Your task to perform on an android device: manage bookmarks in the chrome app Image 0: 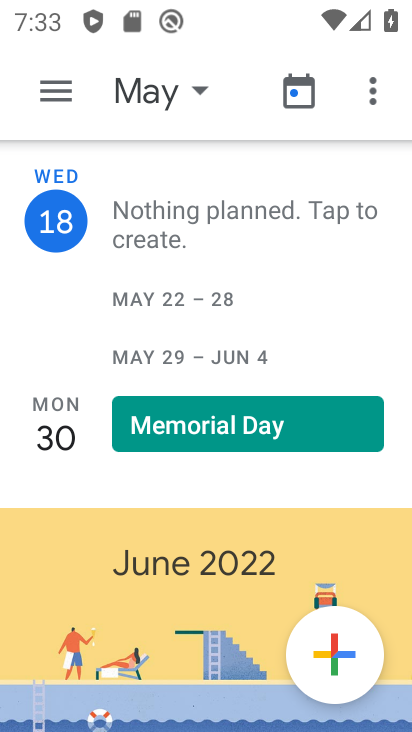
Step 0: press home button
Your task to perform on an android device: manage bookmarks in the chrome app Image 1: 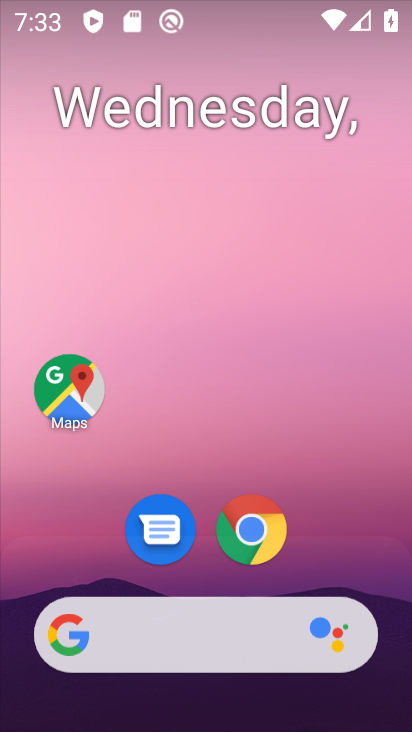
Step 1: click (246, 528)
Your task to perform on an android device: manage bookmarks in the chrome app Image 2: 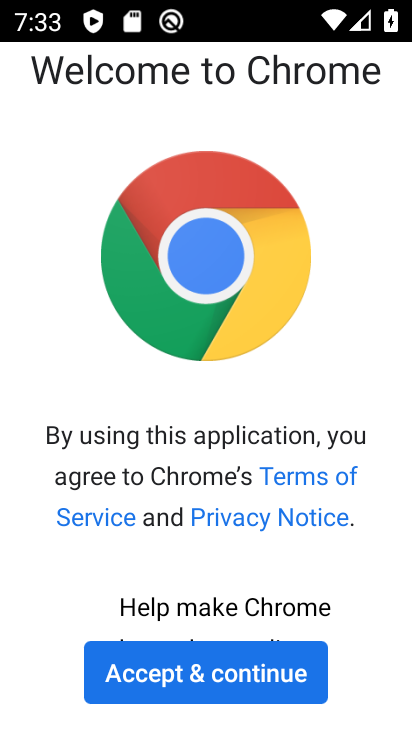
Step 2: click (202, 683)
Your task to perform on an android device: manage bookmarks in the chrome app Image 3: 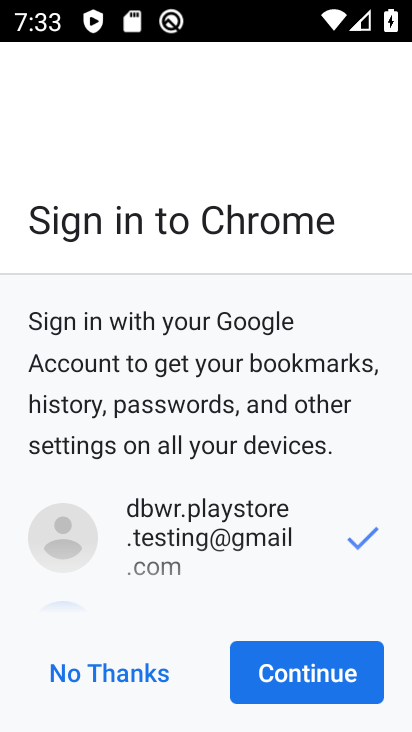
Step 3: click (323, 684)
Your task to perform on an android device: manage bookmarks in the chrome app Image 4: 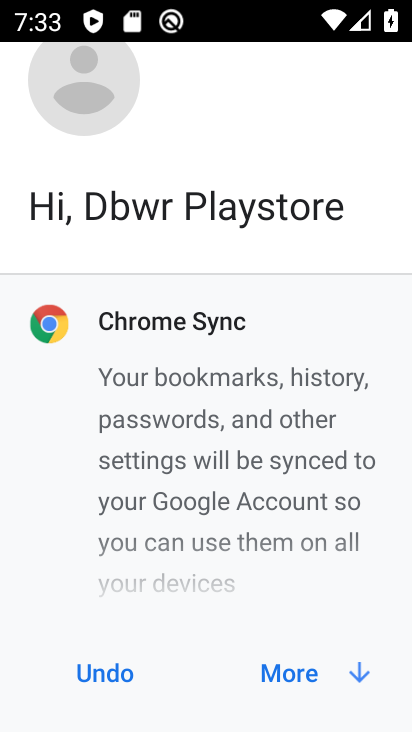
Step 4: click (301, 678)
Your task to perform on an android device: manage bookmarks in the chrome app Image 5: 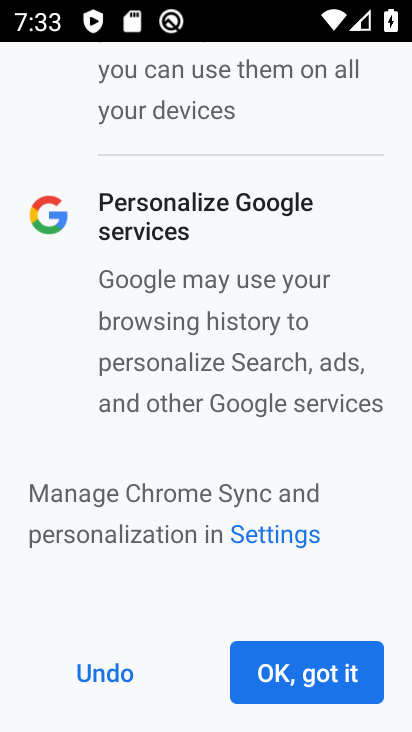
Step 5: click (301, 678)
Your task to perform on an android device: manage bookmarks in the chrome app Image 6: 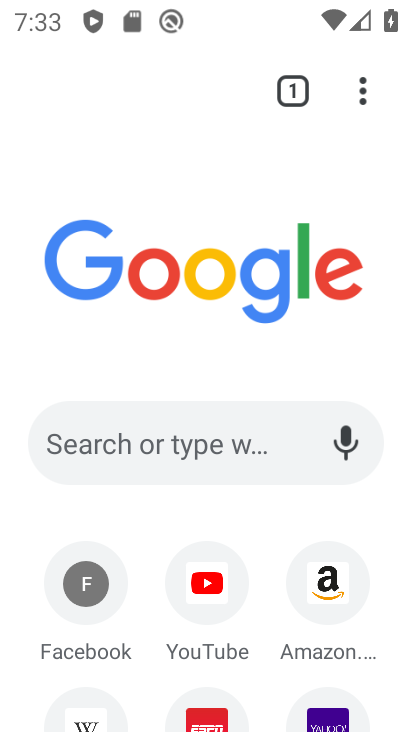
Step 6: click (369, 99)
Your task to perform on an android device: manage bookmarks in the chrome app Image 7: 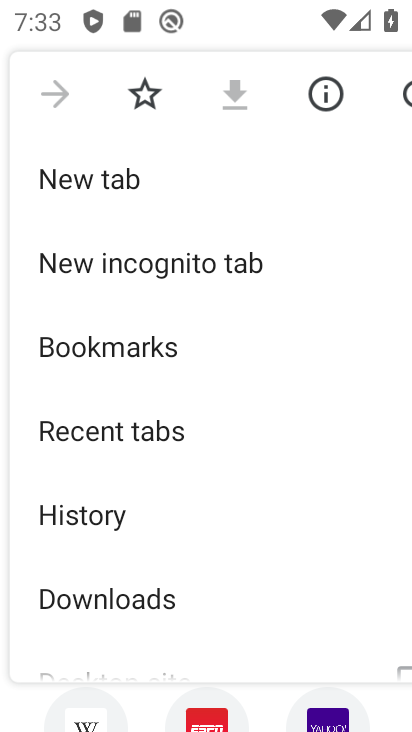
Step 7: click (129, 360)
Your task to perform on an android device: manage bookmarks in the chrome app Image 8: 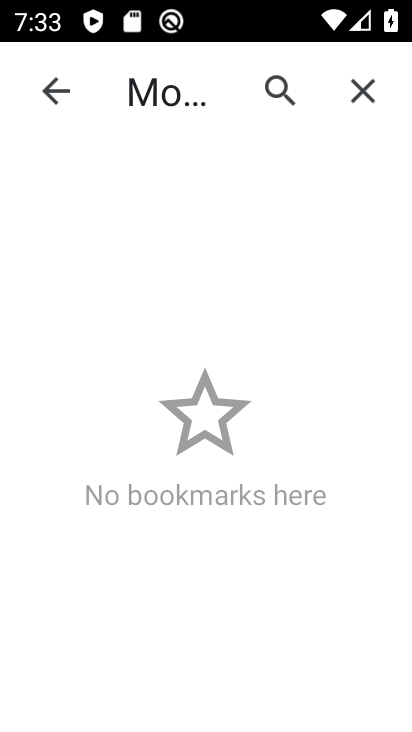
Step 8: task complete